Your task to perform on an android device: Go to Yahoo.com Image 0: 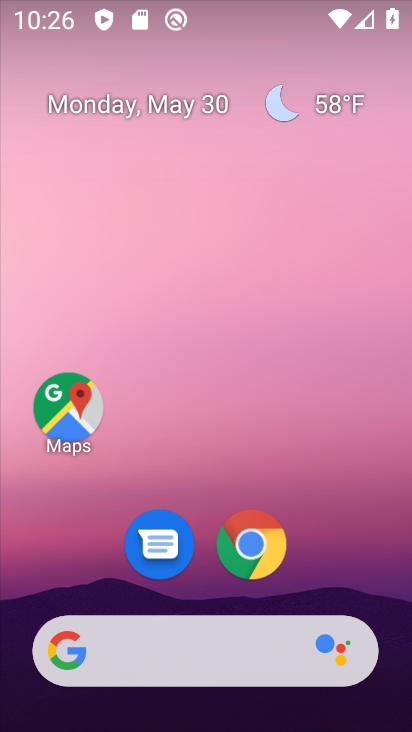
Step 0: click (207, 651)
Your task to perform on an android device: Go to Yahoo.com Image 1: 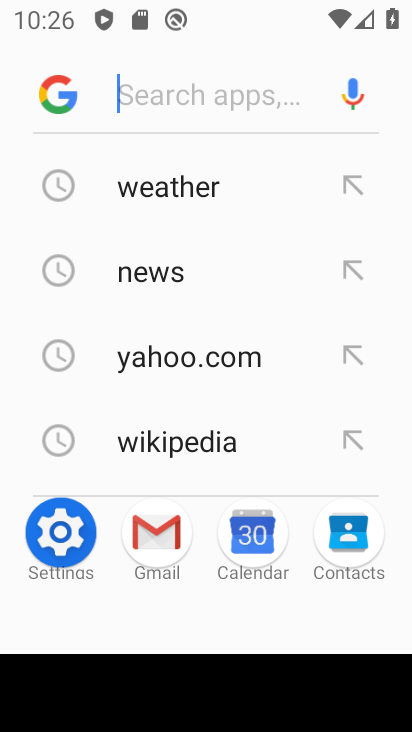
Step 1: click (198, 355)
Your task to perform on an android device: Go to Yahoo.com Image 2: 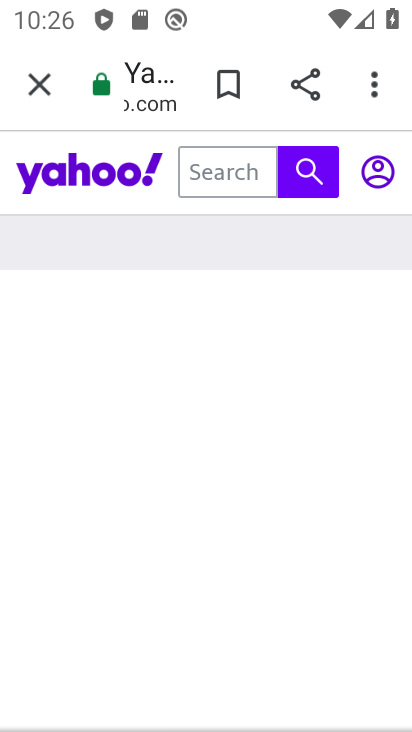
Step 2: task complete